Your task to perform on an android device: open sync settings in chrome Image 0: 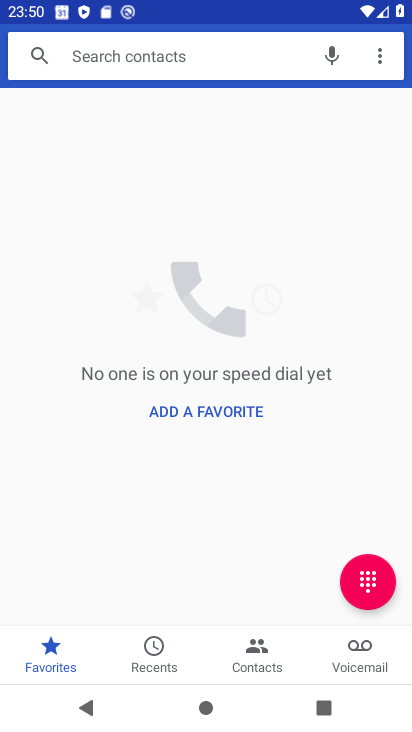
Step 0: press back button
Your task to perform on an android device: open sync settings in chrome Image 1: 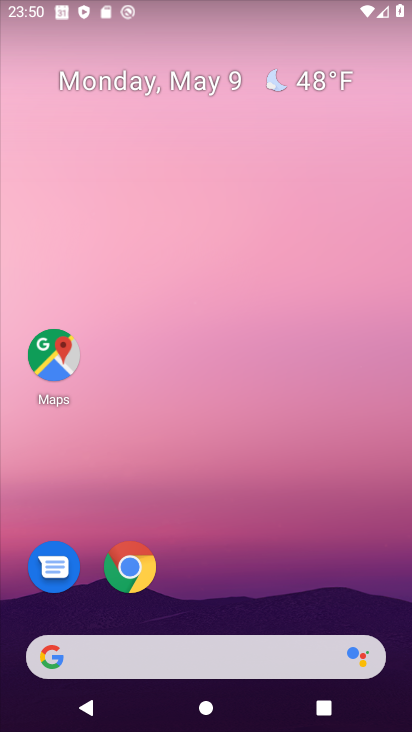
Step 1: drag from (238, 586) to (235, 41)
Your task to perform on an android device: open sync settings in chrome Image 2: 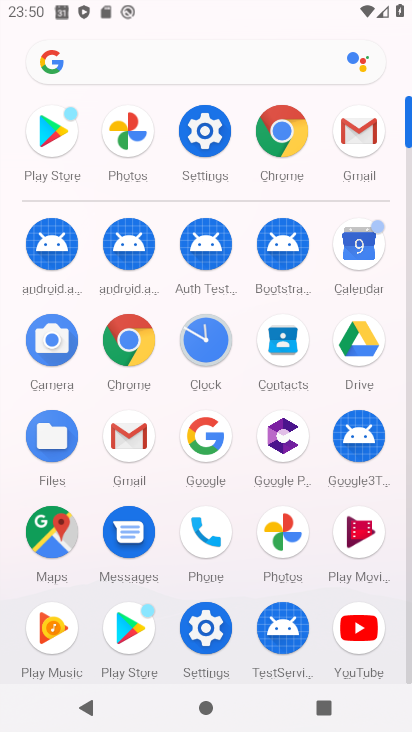
Step 2: click (282, 131)
Your task to perform on an android device: open sync settings in chrome Image 3: 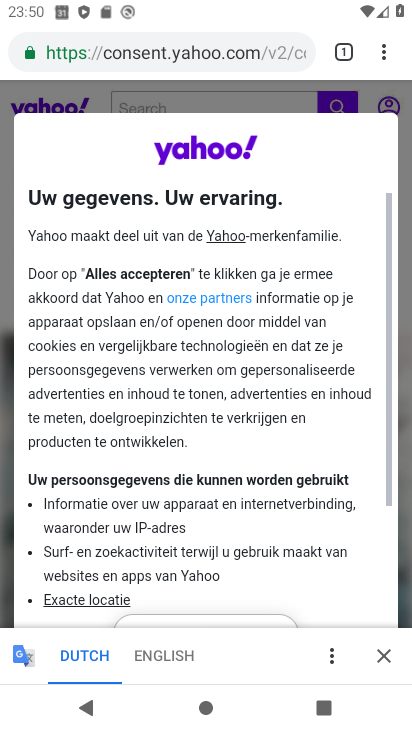
Step 3: click (382, 49)
Your task to perform on an android device: open sync settings in chrome Image 4: 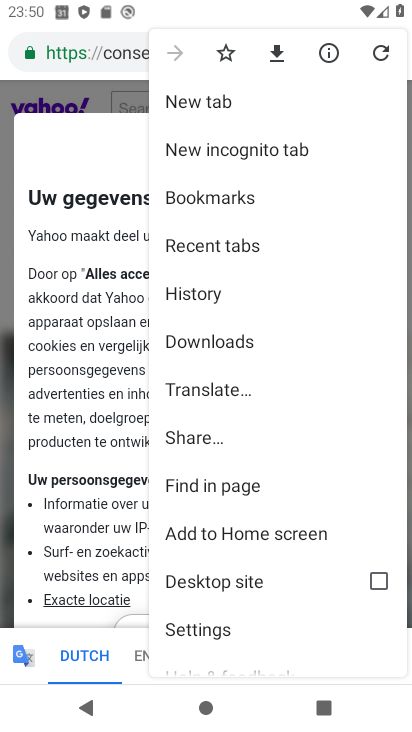
Step 4: click (196, 631)
Your task to perform on an android device: open sync settings in chrome Image 5: 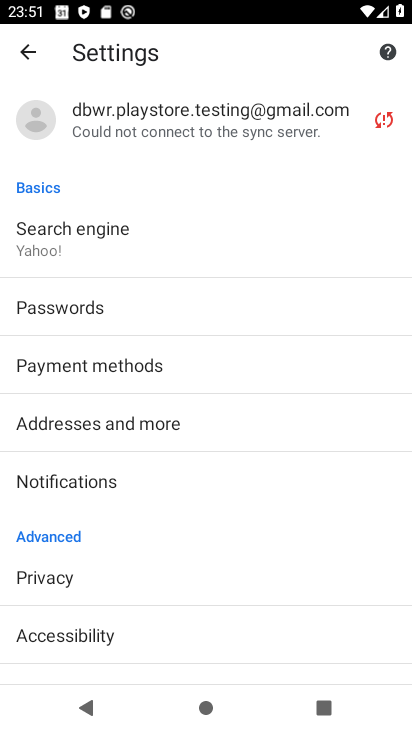
Step 5: drag from (86, 560) to (179, 418)
Your task to perform on an android device: open sync settings in chrome Image 6: 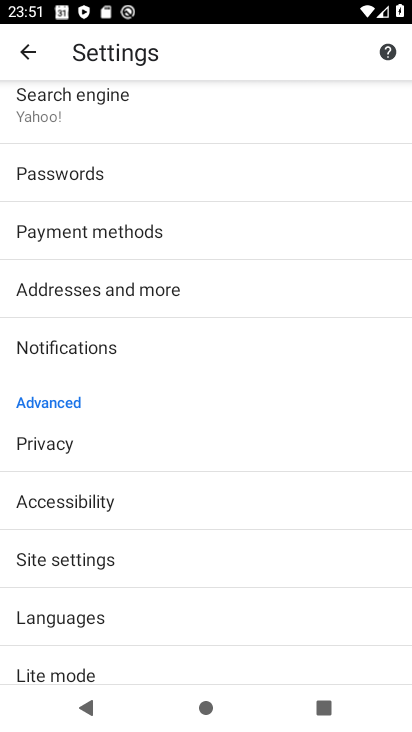
Step 6: click (87, 563)
Your task to perform on an android device: open sync settings in chrome Image 7: 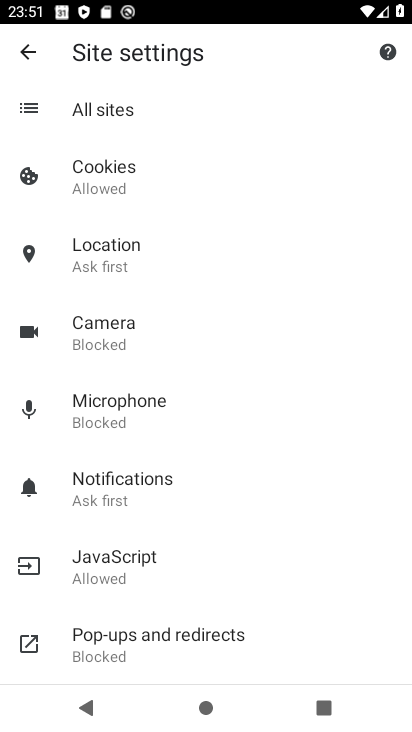
Step 7: drag from (165, 520) to (207, 371)
Your task to perform on an android device: open sync settings in chrome Image 8: 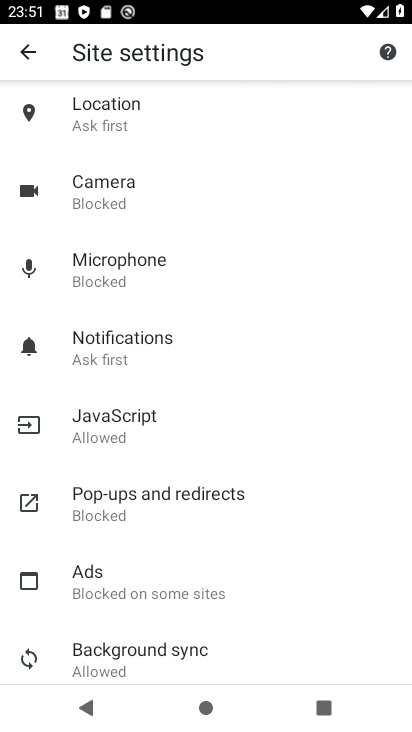
Step 8: drag from (154, 577) to (198, 477)
Your task to perform on an android device: open sync settings in chrome Image 9: 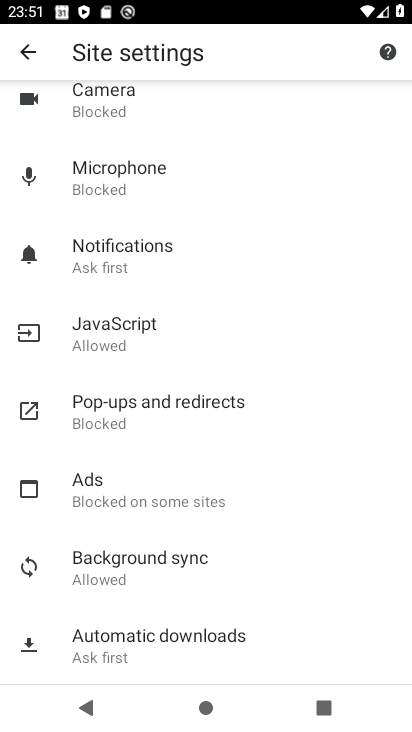
Step 9: click (148, 560)
Your task to perform on an android device: open sync settings in chrome Image 10: 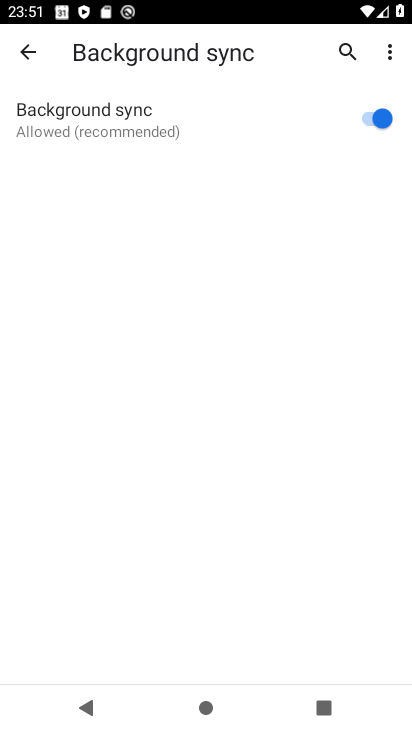
Step 10: task complete